Your task to perform on an android device: turn pop-ups on in chrome Image 0: 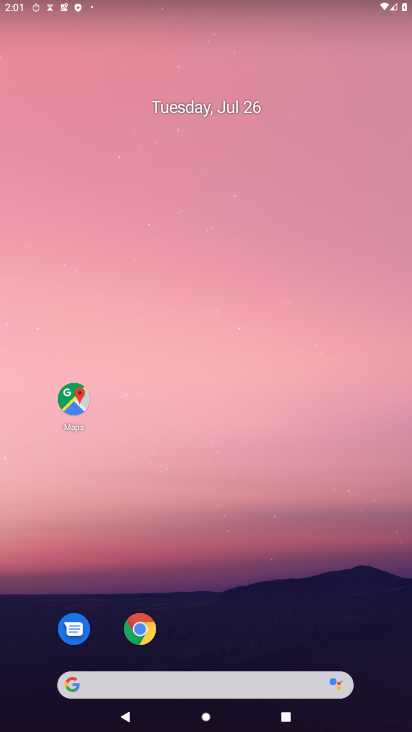
Step 0: drag from (187, 614) to (224, 150)
Your task to perform on an android device: turn pop-ups on in chrome Image 1: 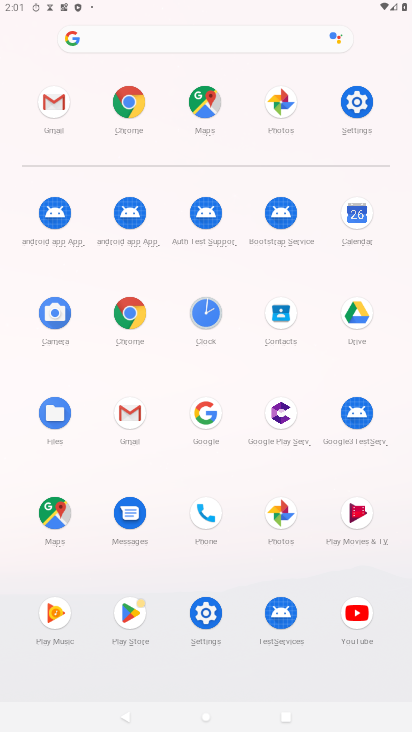
Step 1: click (136, 323)
Your task to perform on an android device: turn pop-ups on in chrome Image 2: 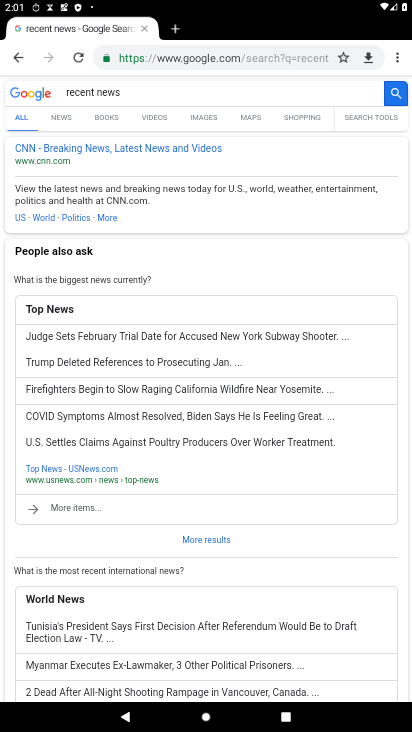
Step 2: drag from (391, 50) to (281, 357)
Your task to perform on an android device: turn pop-ups on in chrome Image 3: 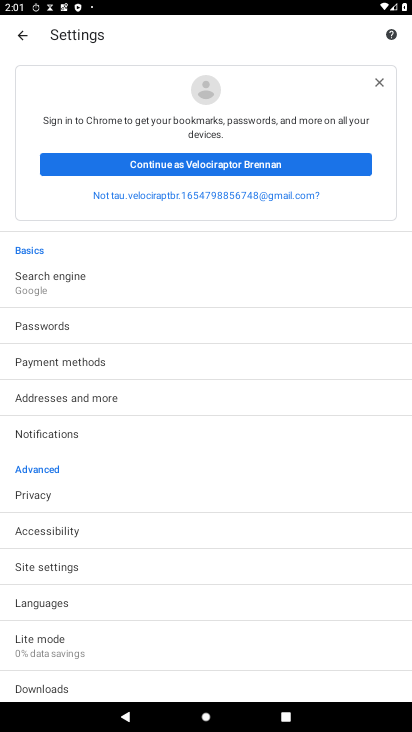
Step 3: click (97, 559)
Your task to perform on an android device: turn pop-ups on in chrome Image 4: 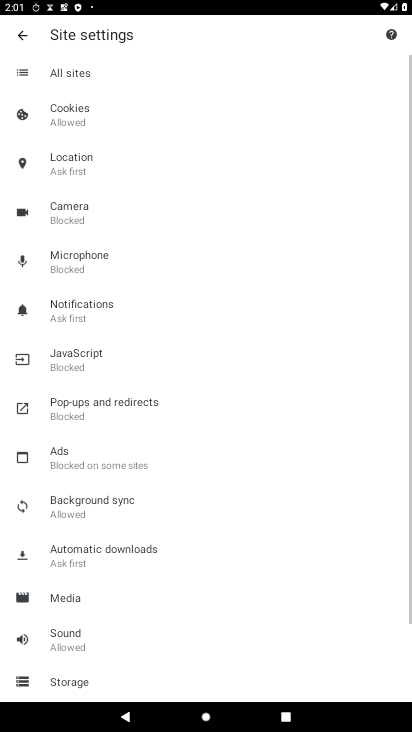
Step 4: click (137, 403)
Your task to perform on an android device: turn pop-ups on in chrome Image 5: 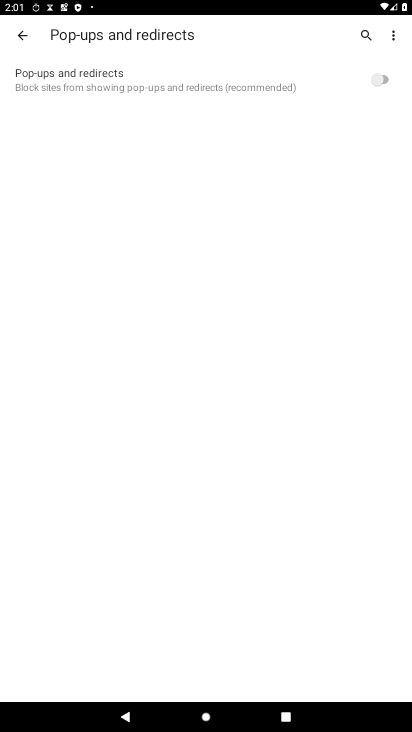
Step 5: click (386, 76)
Your task to perform on an android device: turn pop-ups on in chrome Image 6: 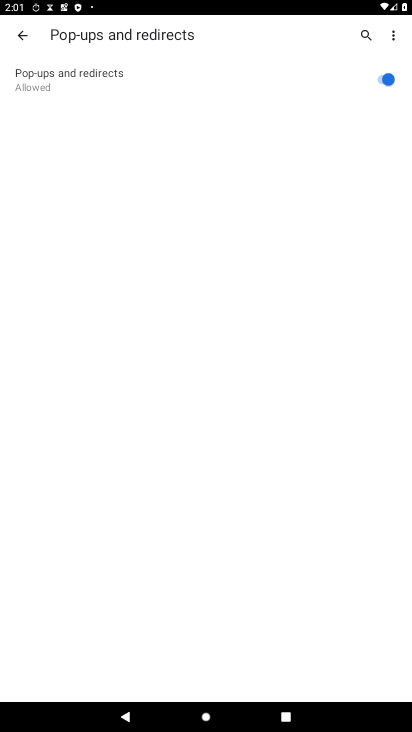
Step 6: task complete